Your task to perform on an android device: Check the weather Image 0: 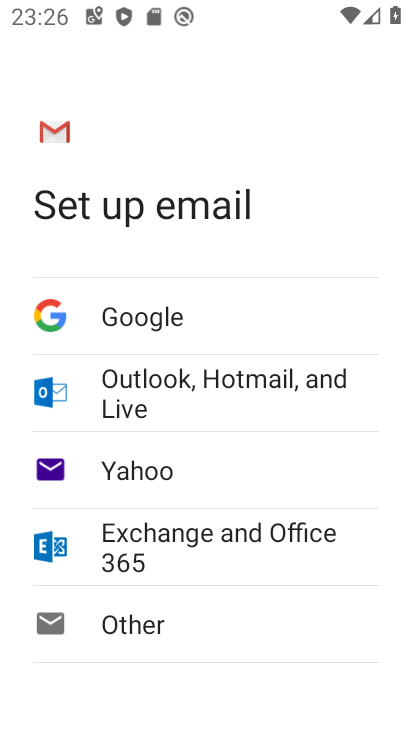
Step 0: press home button
Your task to perform on an android device: Check the weather Image 1: 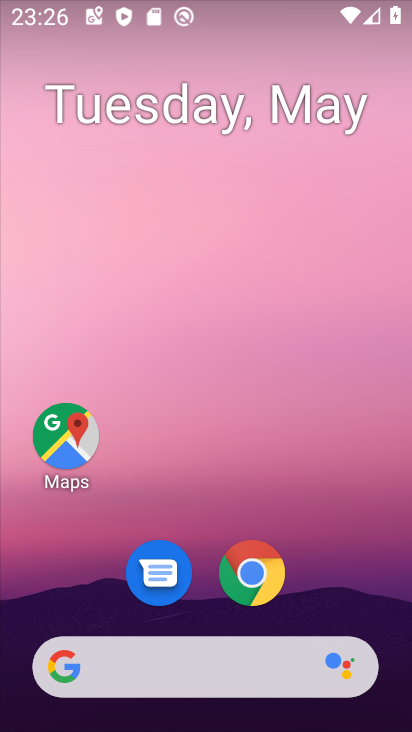
Step 1: drag from (325, 560) to (340, 224)
Your task to perform on an android device: Check the weather Image 2: 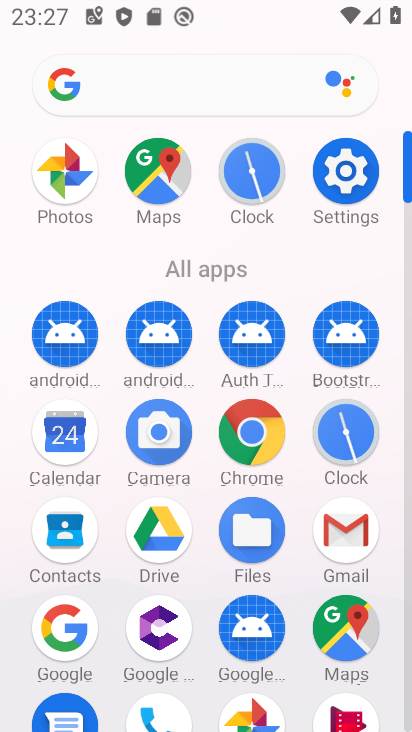
Step 2: click (238, 424)
Your task to perform on an android device: Check the weather Image 3: 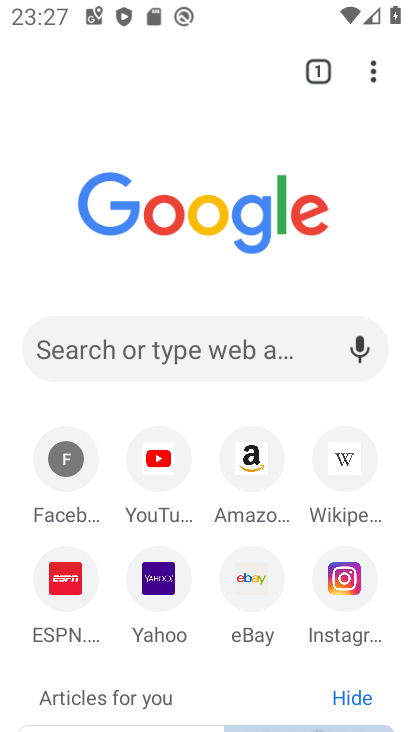
Step 3: click (198, 335)
Your task to perform on an android device: Check the weather Image 4: 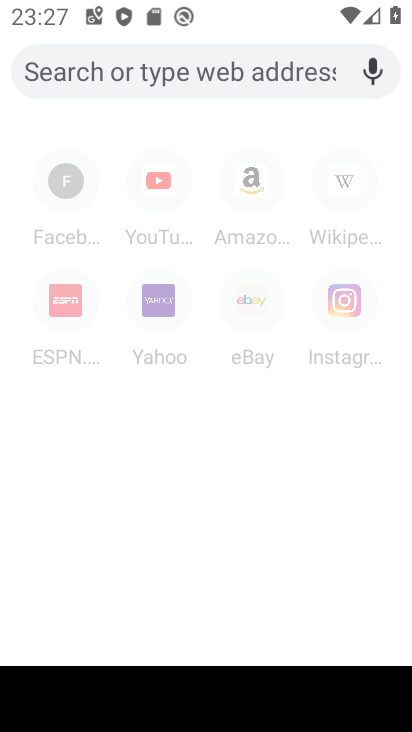
Step 4: type "Check the weather"
Your task to perform on an android device: Check the weather Image 5: 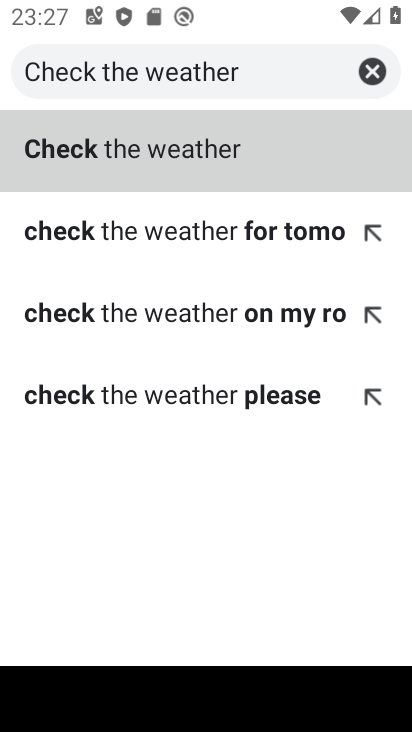
Step 5: click (160, 137)
Your task to perform on an android device: Check the weather Image 6: 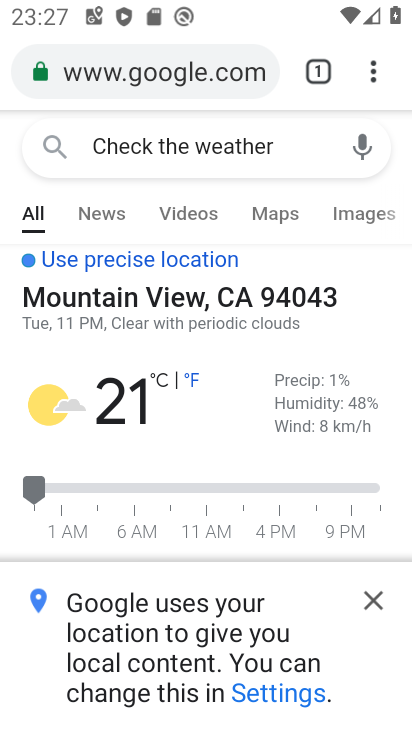
Step 6: task complete